Your task to perform on an android device: Open display settings Image 0: 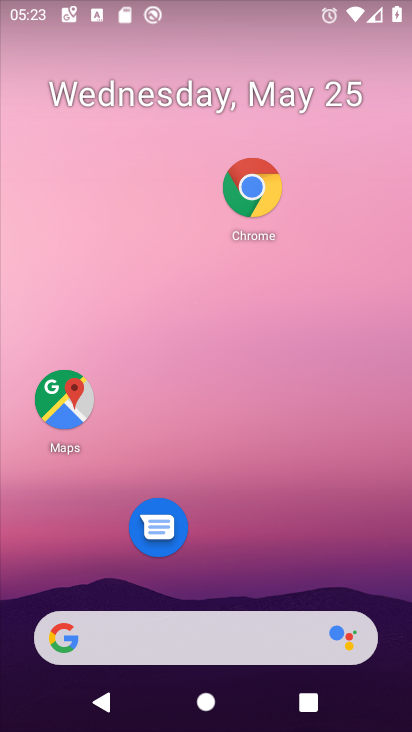
Step 0: drag from (272, 593) to (274, 223)
Your task to perform on an android device: Open display settings Image 1: 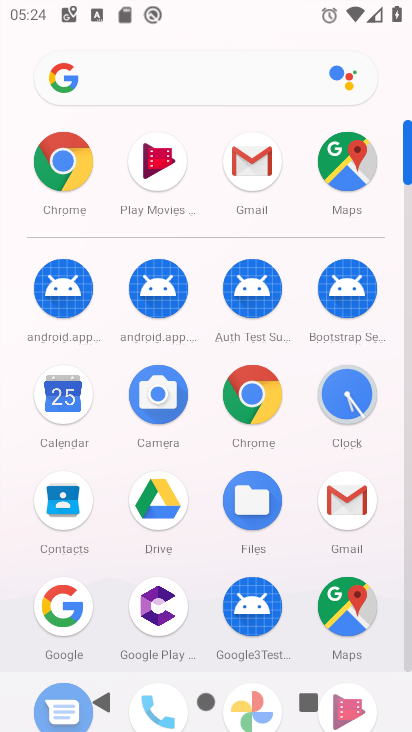
Step 1: drag from (259, 612) to (277, 242)
Your task to perform on an android device: Open display settings Image 2: 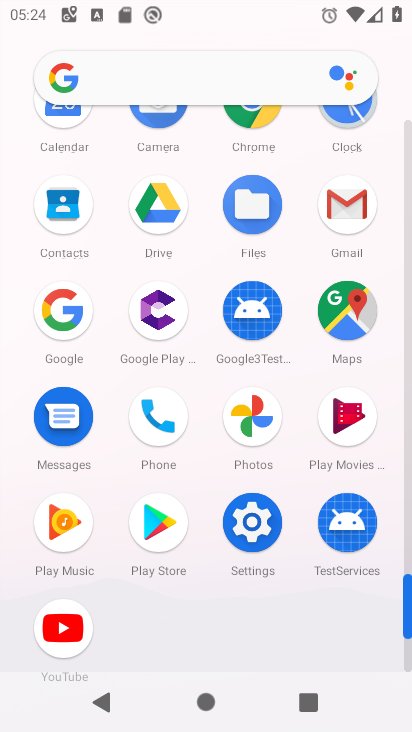
Step 2: click (246, 535)
Your task to perform on an android device: Open display settings Image 3: 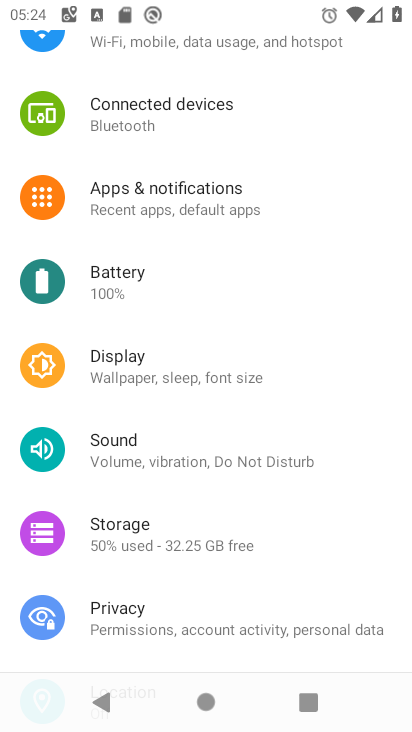
Step 3: click (166, 374)
Your task to perform on an android device: Open display settings Image 4: 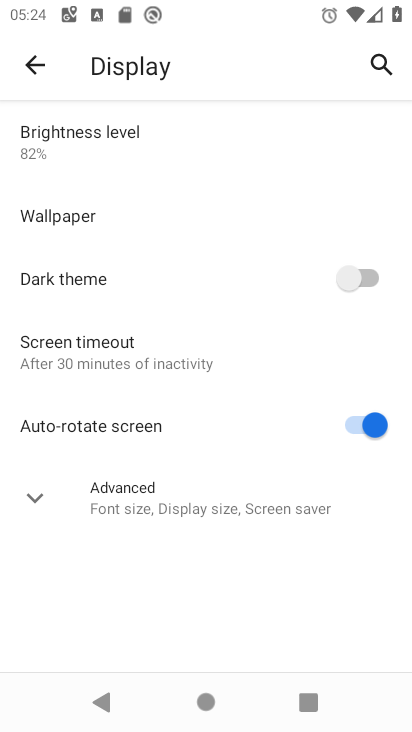
Step 4: task complete